Your task to perform on an android device: Do I have any events tomorrow? Image 0: 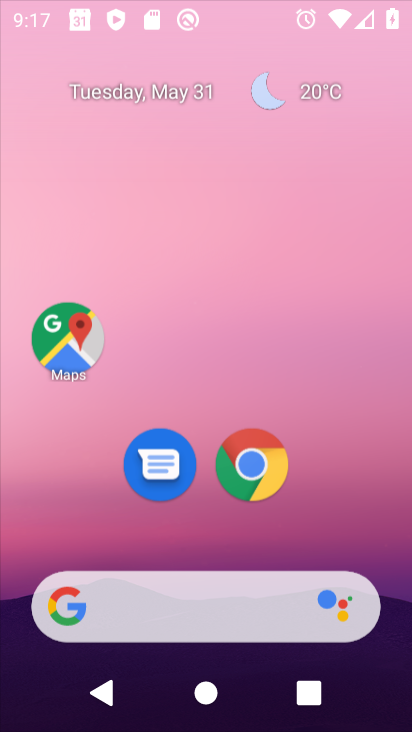
Step 0: click (284, 174)
Your task to perform on an android device: Do I have any events tomorrow? Image 1: 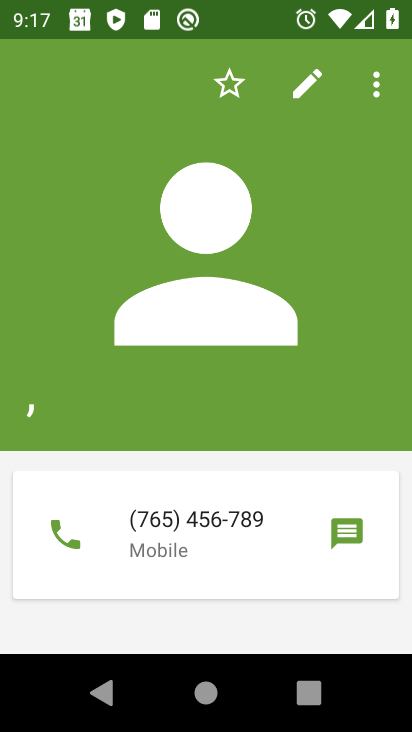
Step 1: drag from (221, 608) to (154, 1)
Your task to perform on an android device: Do I have any events tomorrow? Image 2: 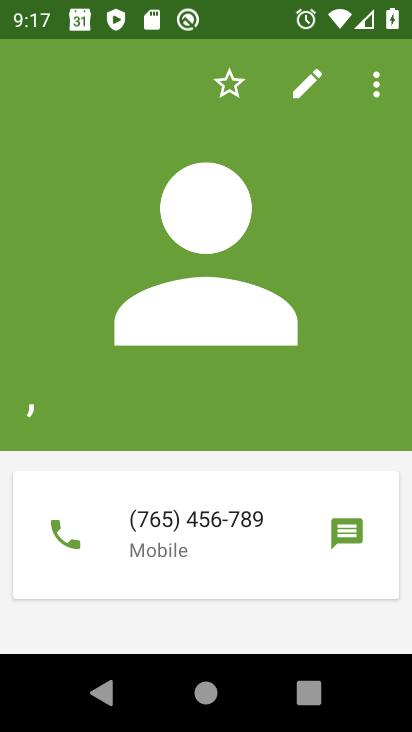
Step 2: drag from (195, 608) to (217, 249)
Your task to perform on an android device: Do I have any events tomorrow? Image 3: 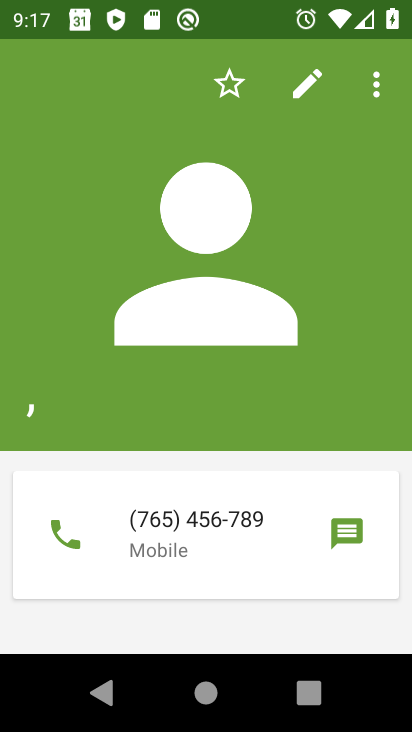
Step 3: press home button
Your task to perform on an android device: Do I have any events tomorrow? Image 4: 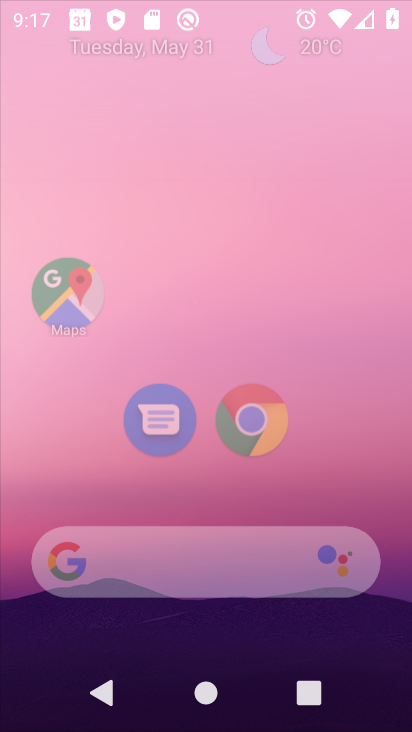
Step 4: drag from (265, 598) to (287, 127)
Your task to perform on an android device: Do I have any events tomorrow? Image 5: 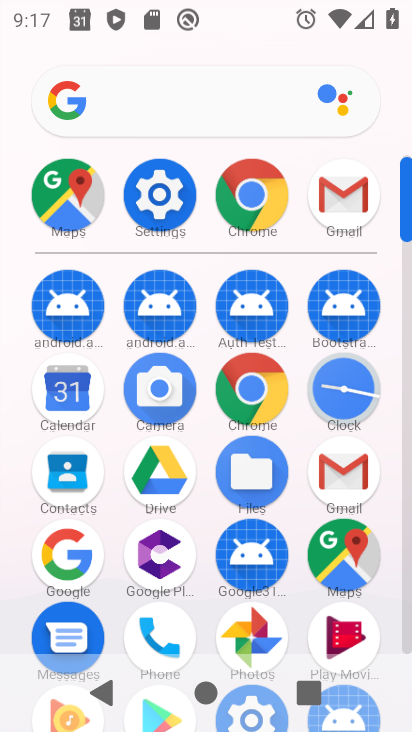
Step 5: click (60, 397)
Your task to perform on an android device: Do I have any events tomorrow? Image 6: 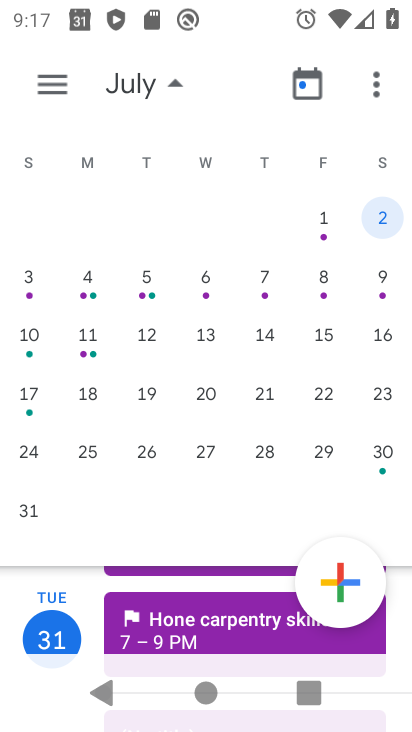
Step 6: click (139, 70)
Your task to perform on an android device: Do I have any events tomorrow? Image 7: 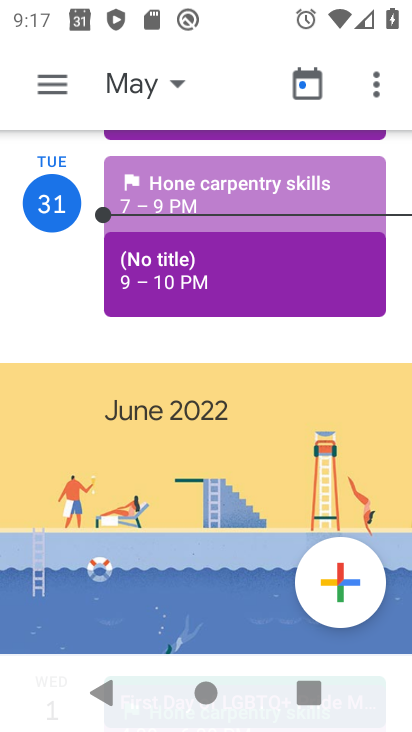
Step 7: click (145, 79)
Your task to perform on an android device: Do I have any events tomorrow? Image 8: 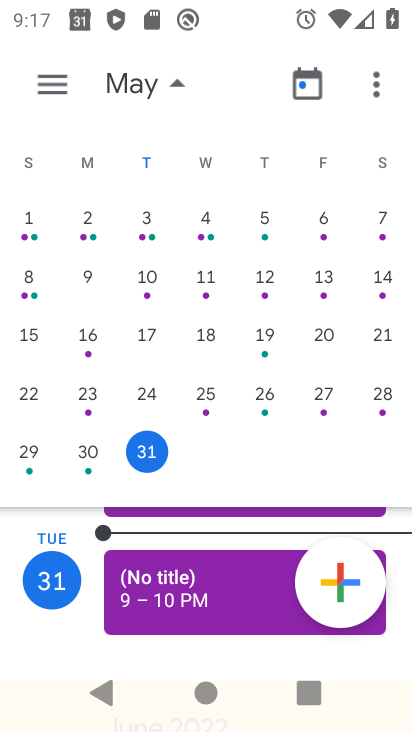
Step 8: drag from (351, 359) to (4, 248)
Your task to perform on an android device: Do I have any events tomorrow? Image 9: 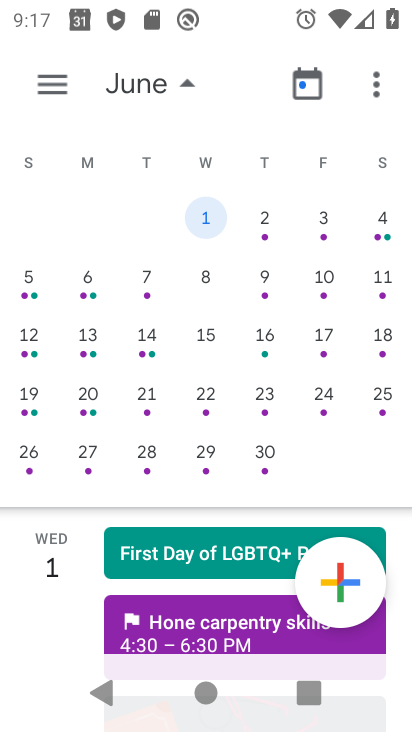
Step 9: click (273, 206)
Your task to perform on an android device: Do I have any events tomorrow? Image 10: 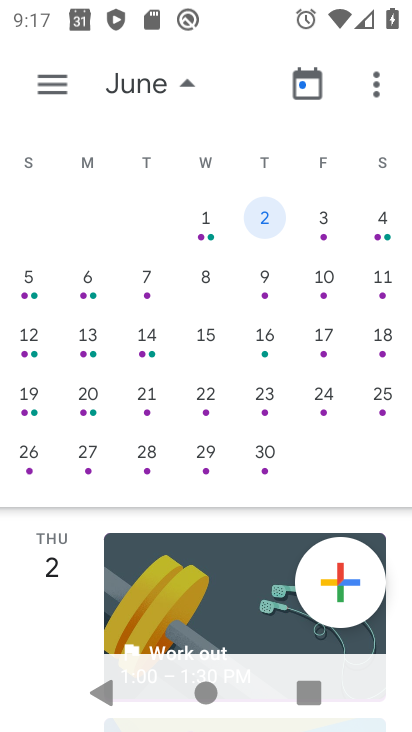
Step 10: task complete